Your task to perform on an android device: When is my next appointment? Image 0: 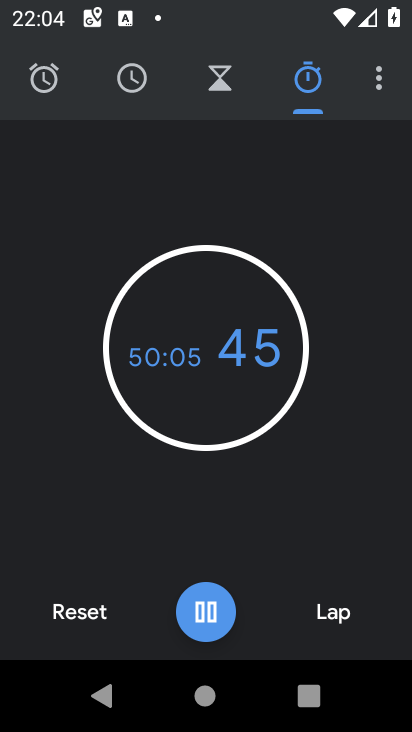
Step 0: press home button
Your task to perform on an android device: When is my next appointment? Image 1: 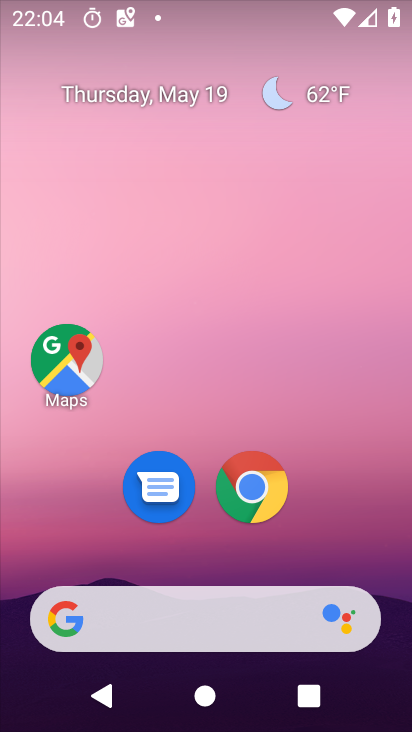
Step 1: click (185, 92)
Your task to perform on an android device: When is my next appointment? Image 2: 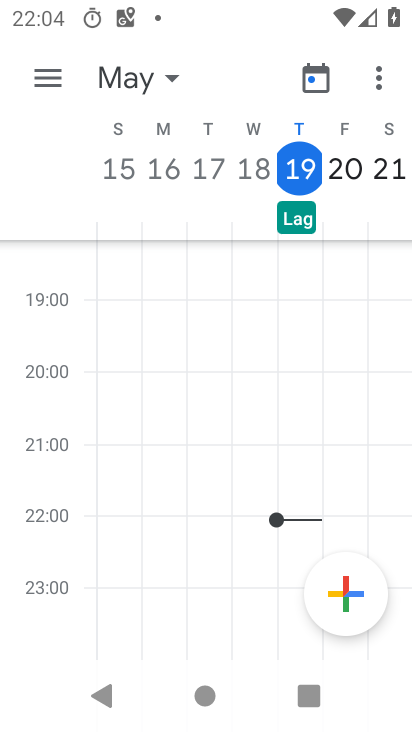
Step 2: click (48, 74)
Your task to perform on an android device: When is my next appointment? Image 3: 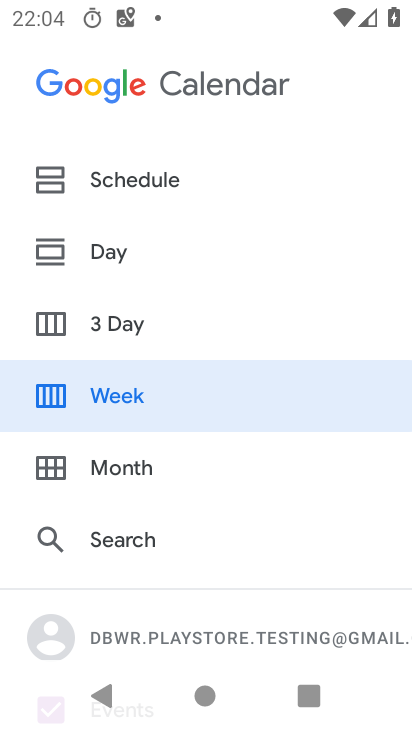
Step 3: click (121, 173)
Your task to perform on an android device: When is my next appointment? Image 4: 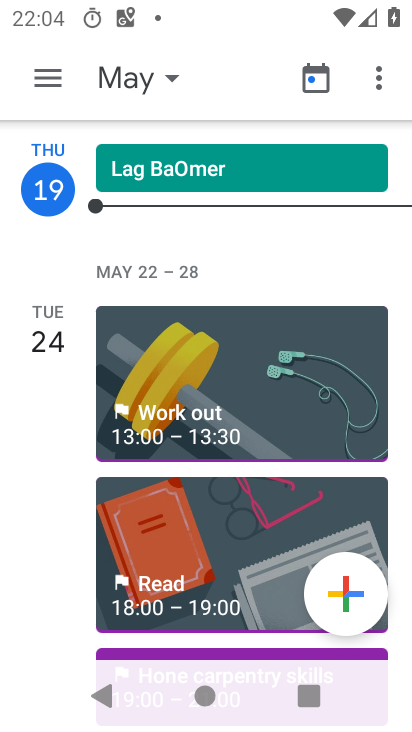
Step 4: click (50, 79)
Your task to perform on an android device: When is my next appointment? Image 5: 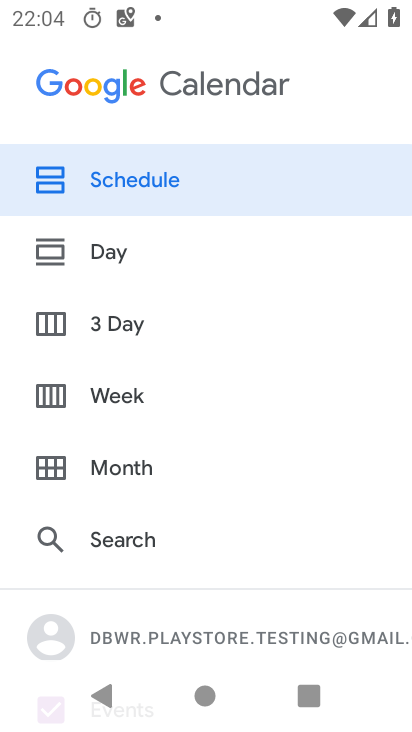
Step 5: drag from (220, 570) to (224, 239)
Your task to perform on an android device: When is my next appointment? Image 6: 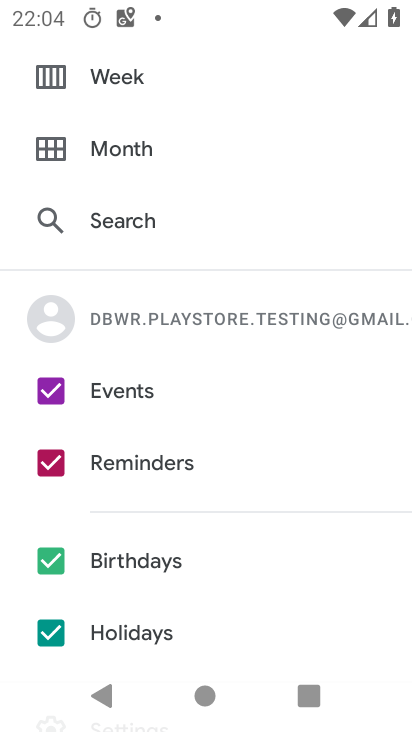
Step 6: drag from (253, 161) to (237, 489)
Your task to perform on an android device: When is my next appointment? Image 7: 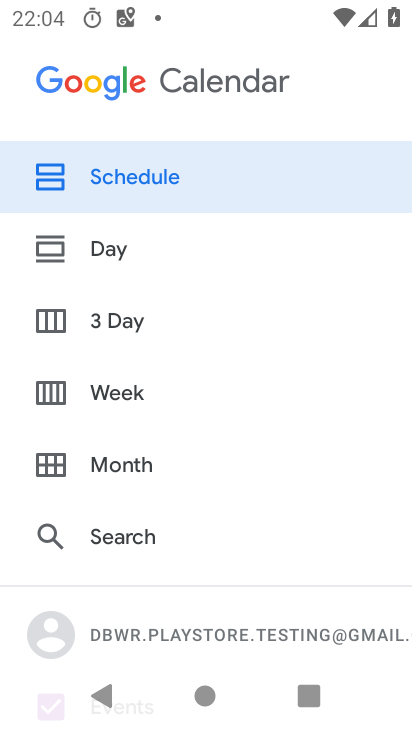
Step 7: click (191, 174)
Your task to perform on an android device: When is my next appointment? Image 8: 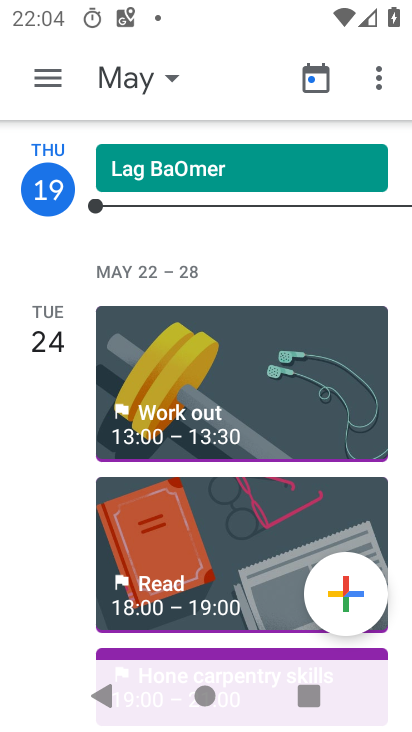
Step 8: task complete